Your task to perform on an android device: Open the phone app and click the voicemail tab. Image 0: 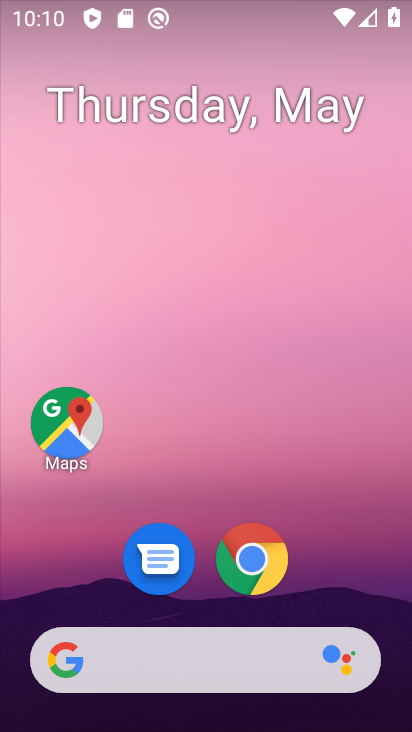
Step 0: drag from (374, 555) to (265, 92)
Your task to perform on an android device: Open the phone app and click the voicemail tab. Image 1: 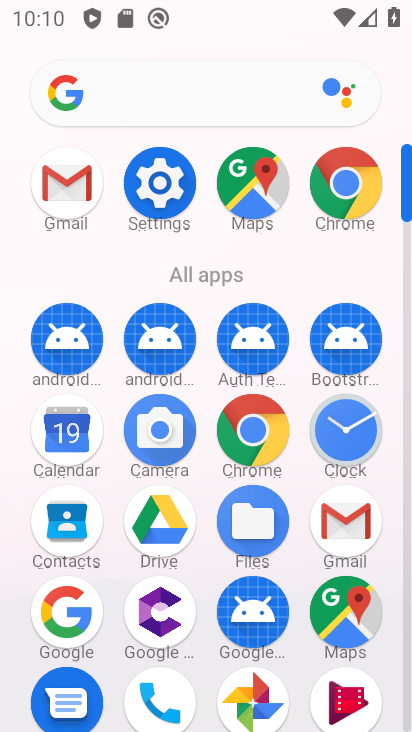
Step 1: click (164, 688)
Your task to perform on an android device: Open the phone app and click the voicemail tab. Image 2: 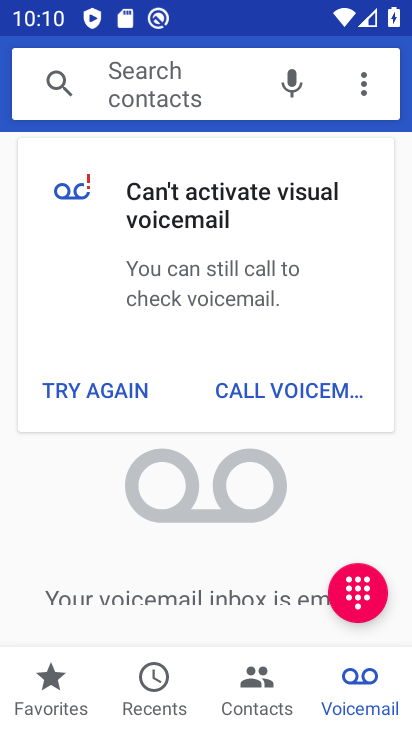
Step 2: task complete